Your task to perform on an android device: open chrome privacy settings Image 0: 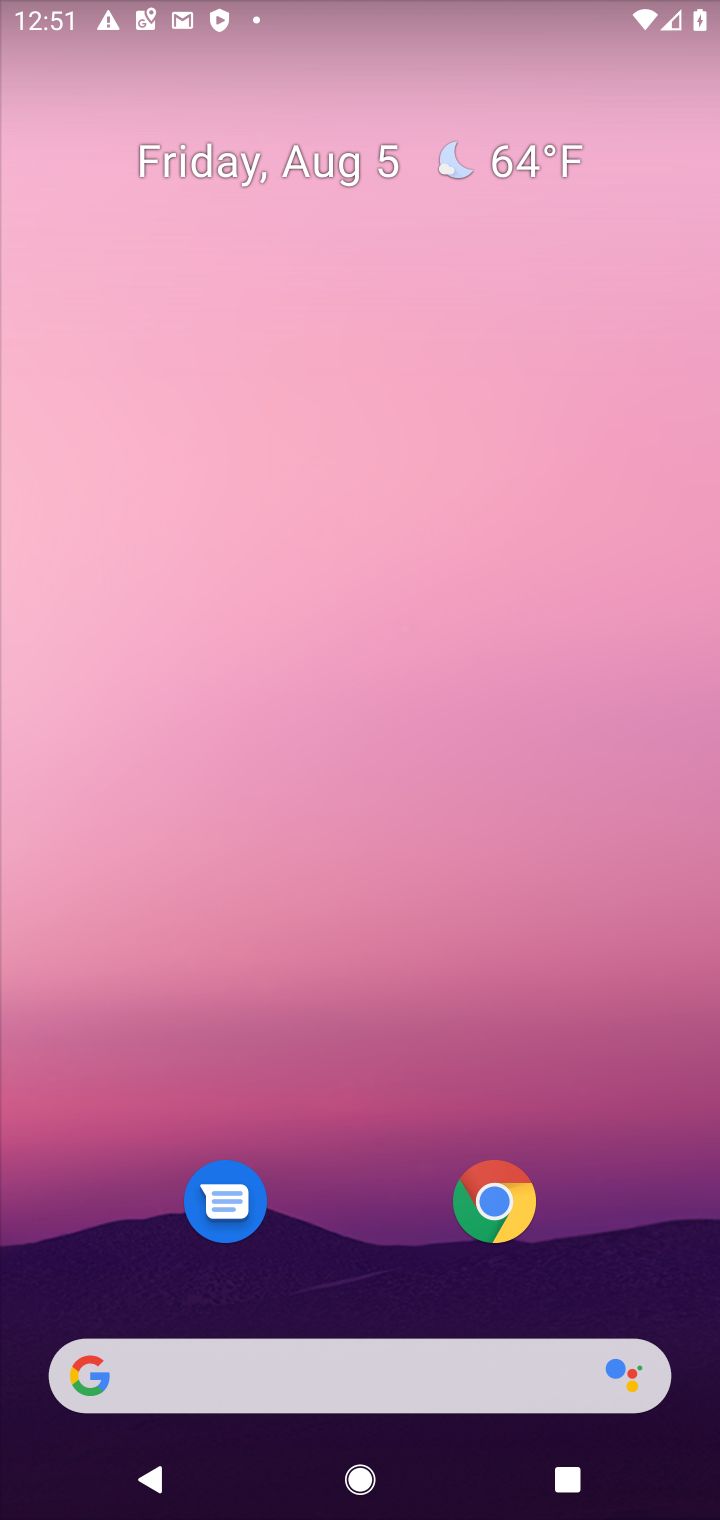
Step 0: click (511, 1198)
Your task to perform on an android device: open chrome privacy settings Image 1: 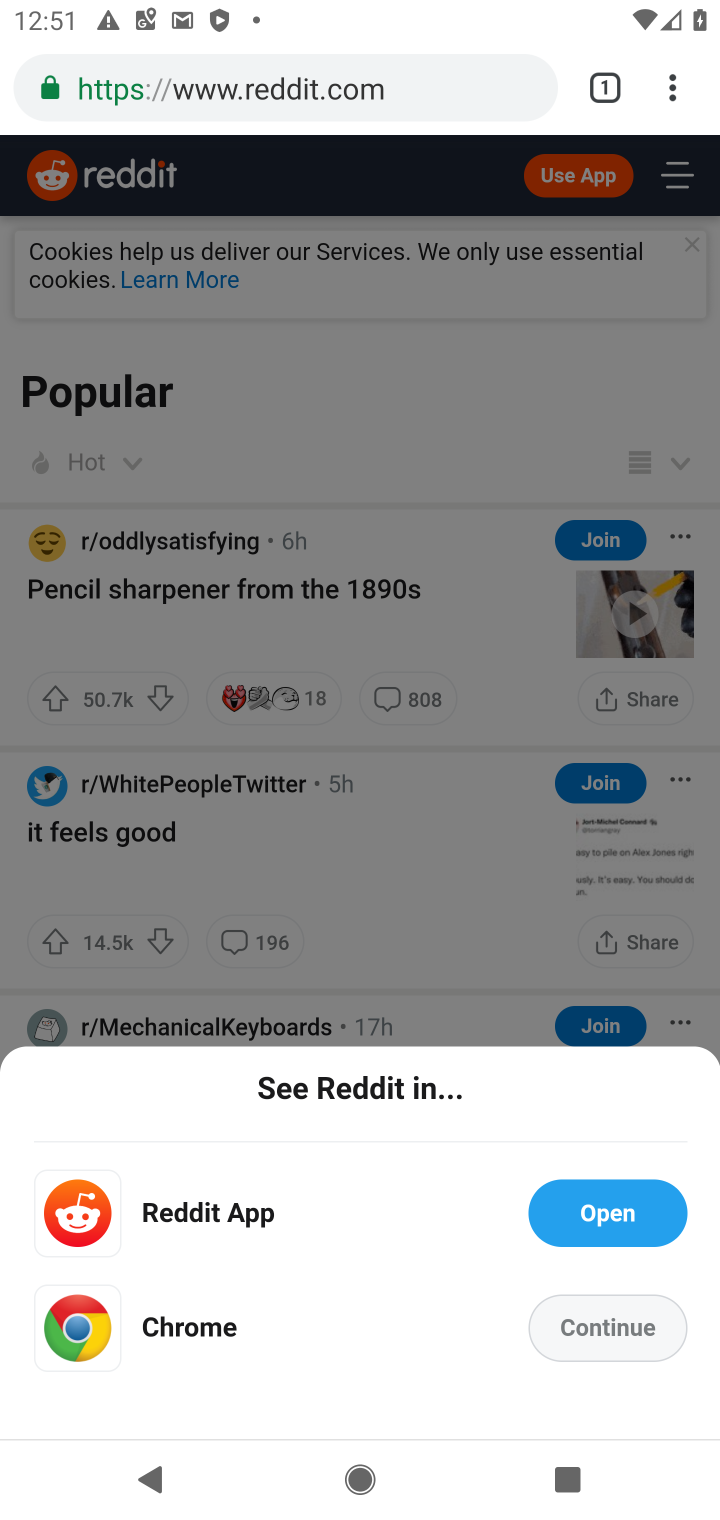
Step 1: click (627, 1323)
Your task to perform on an android device: open chrome privacy settings Image 2: 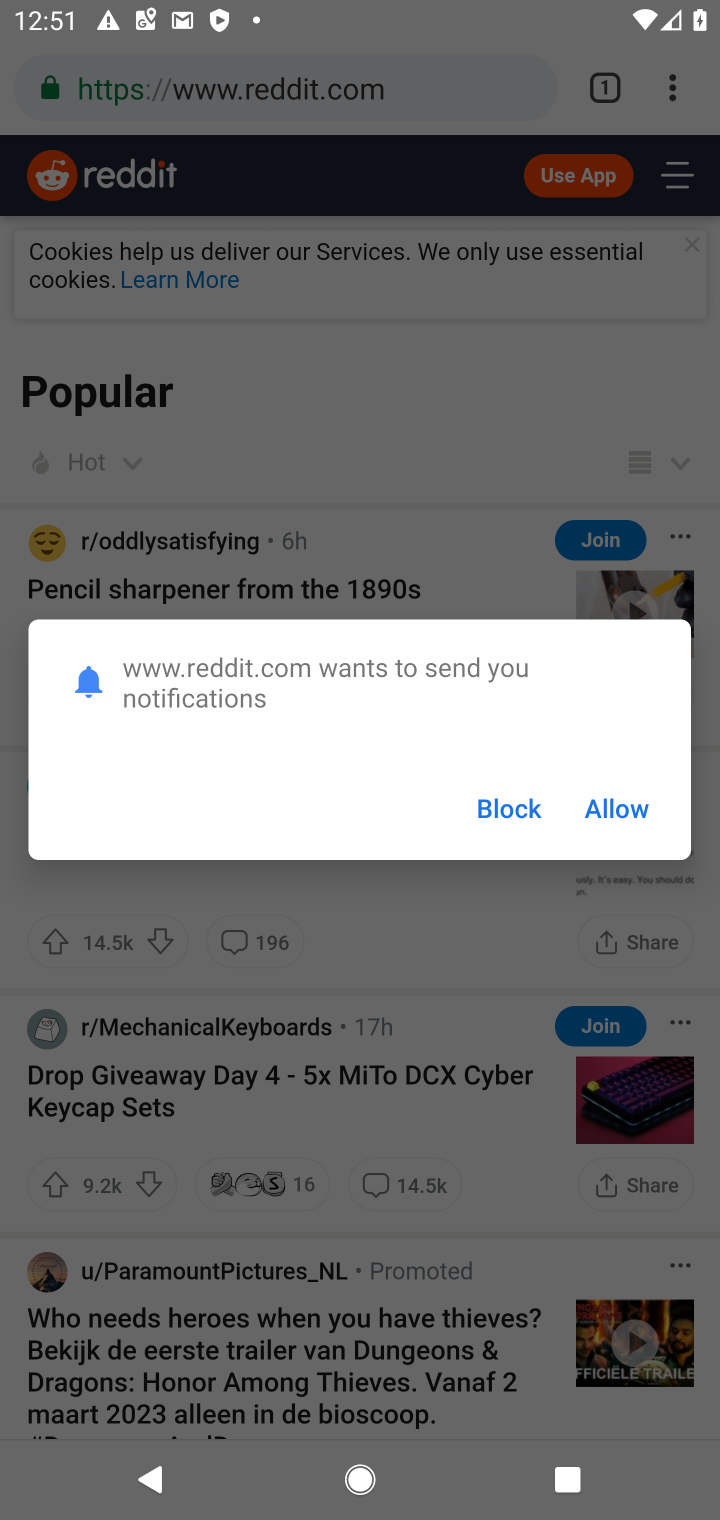
Step 2: click (598, 794)
Your task to perform on an android device: open chrome privacy settings Image 3: 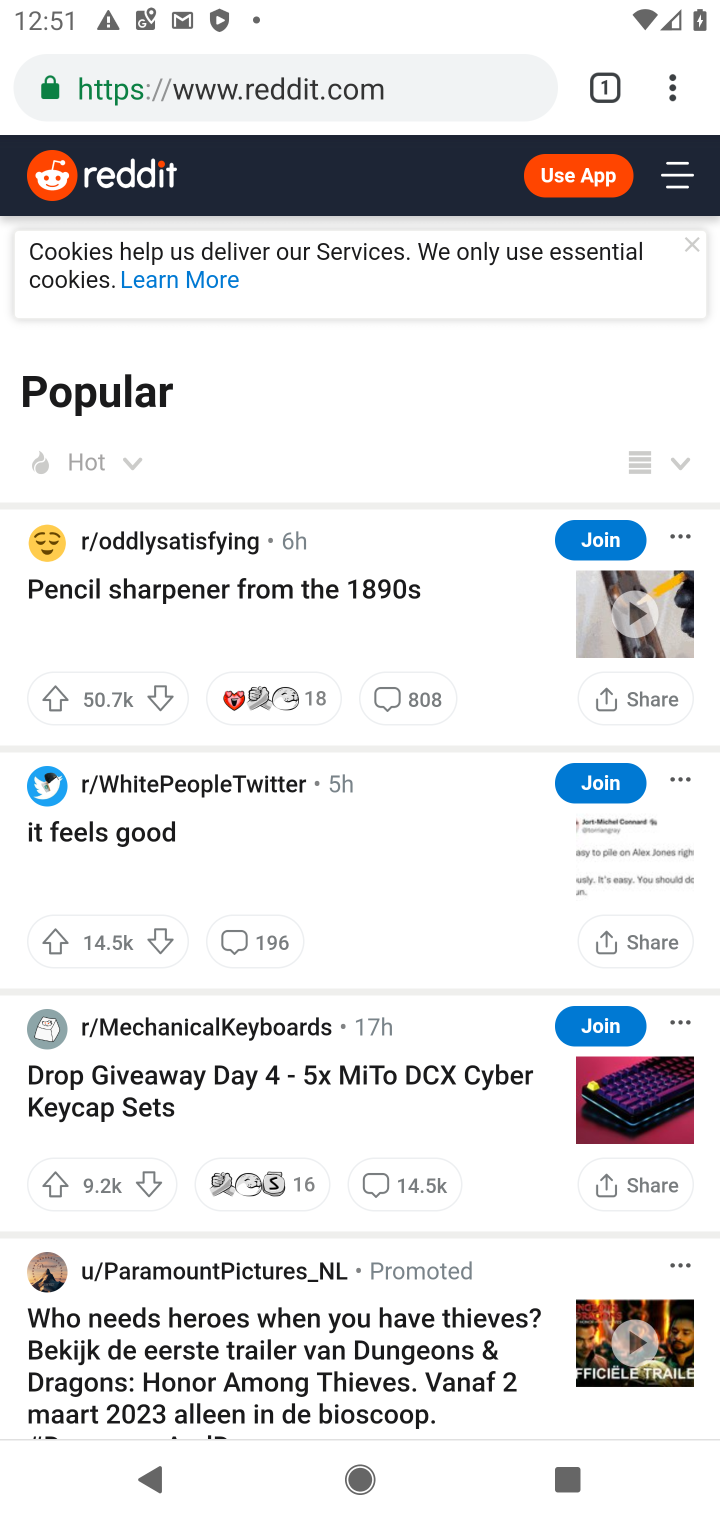
Step 3: click (677, 67)
Your task to perform on an android device: open chrome privacy settings Image 4: 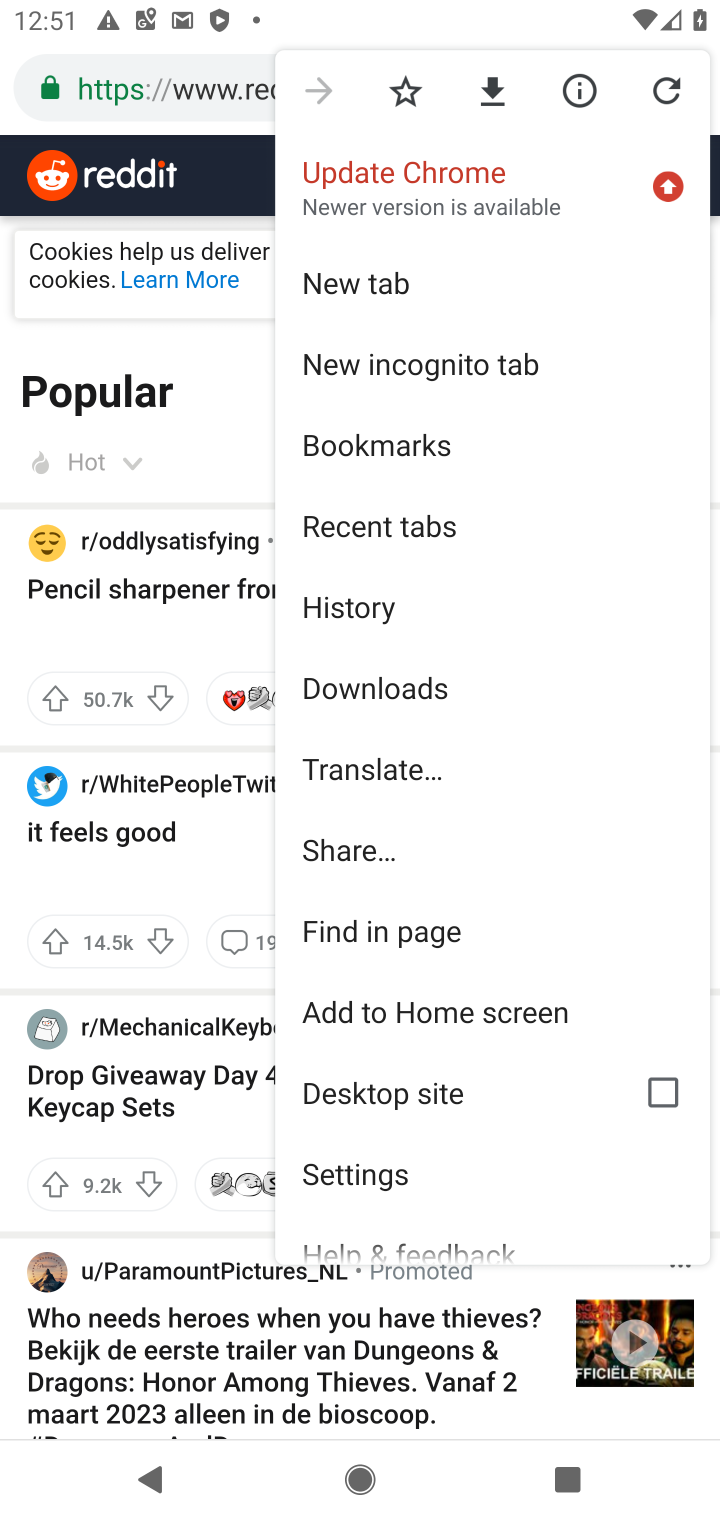
Step 4: click (378, 1173)
Your task to perform on an android device: open chrome privacy settings Image 5: 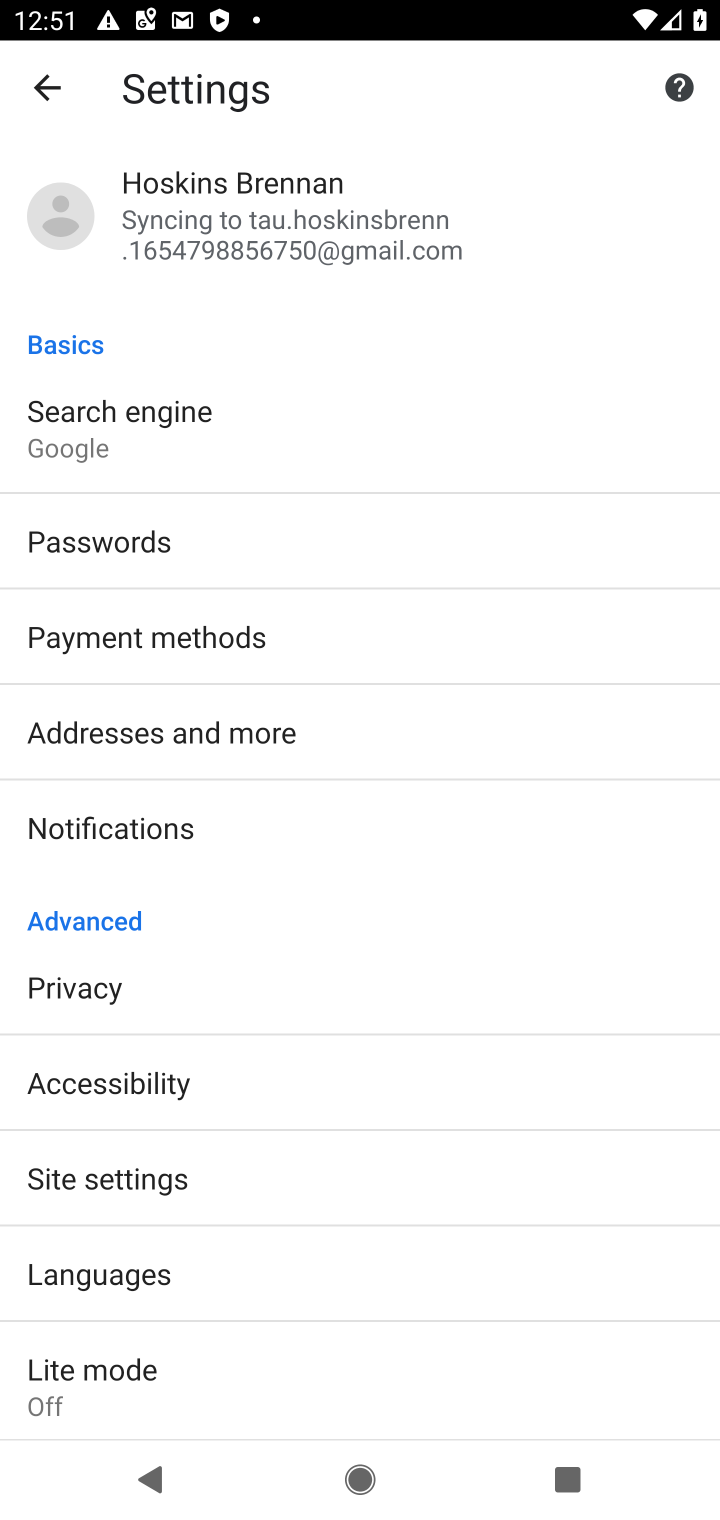
Step 5: click (113, 976)
Your task to perform on an android device: open chrome privacy settings Image 6: 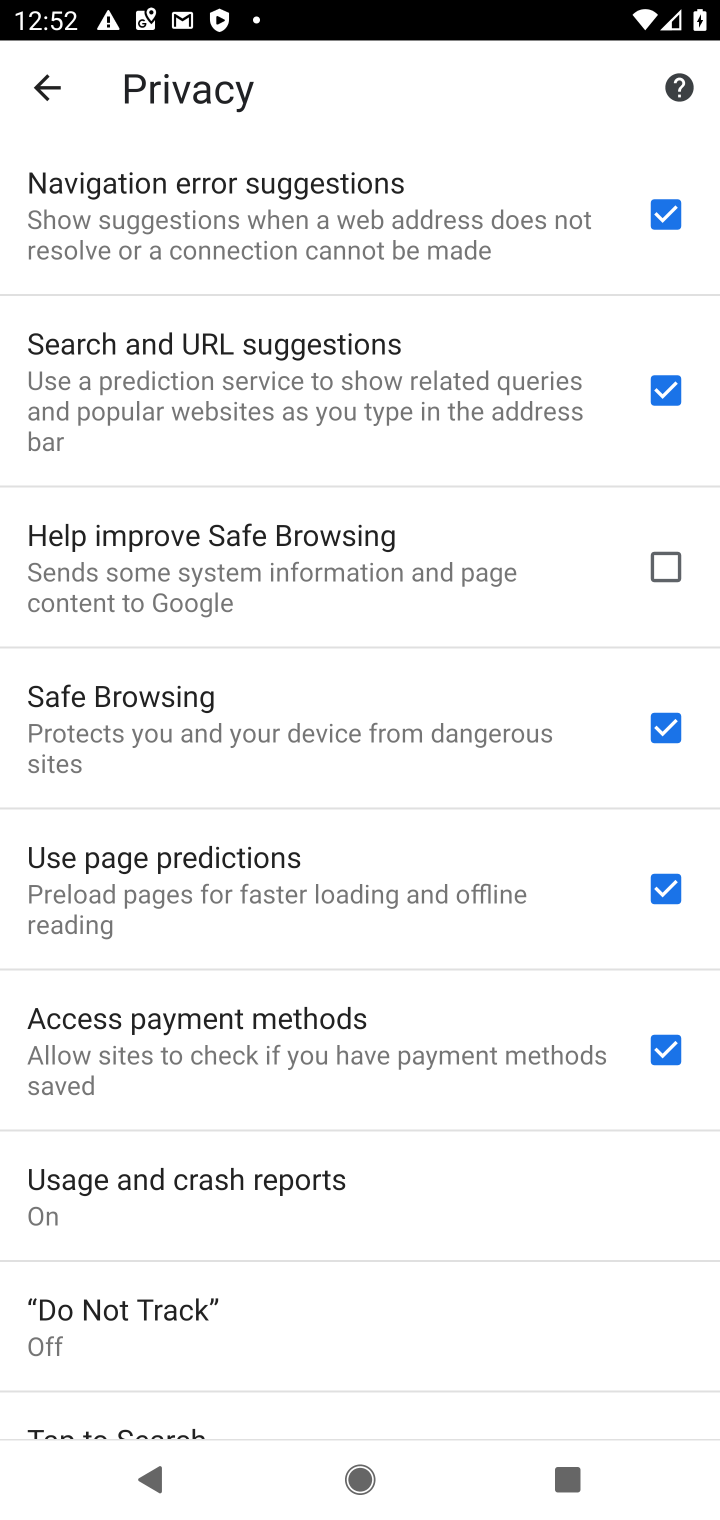
Step 6: task complete